Your task to perform on an android device: clear all cookies in the chrome app Image 0: 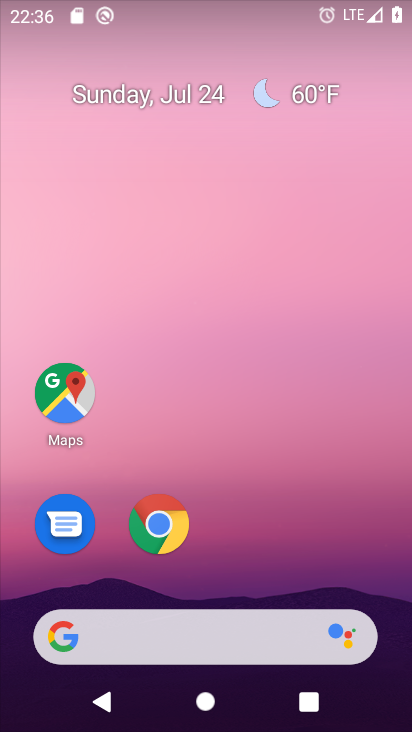
Step 0: click (174, 522)
Your task to perform on an android device: clear all cookies in the chrome app Image 1: 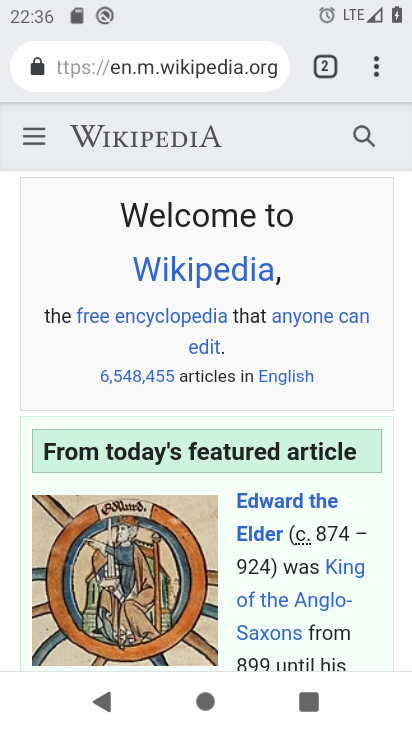
Step 1: click (372, 70)
Your task to perform on an android device: clear all cookies in the chrome app Image 2: 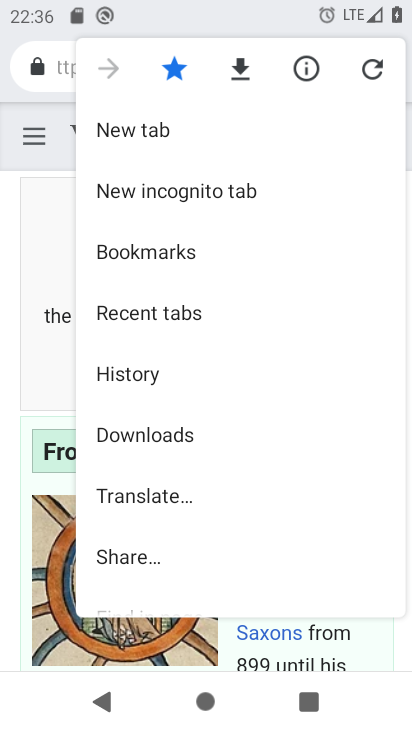
Step 2: drag from (234, 483) to (268, 107)
Your task to perform on an android device: clear all cookies in the chrome app Image 3: 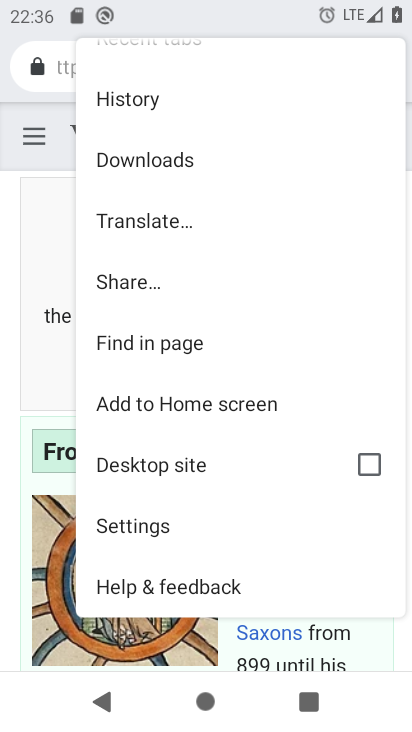
Step 3: click (159, 524)
Your task to perform on an android device: clear all cookies in the chrome app Image 4: 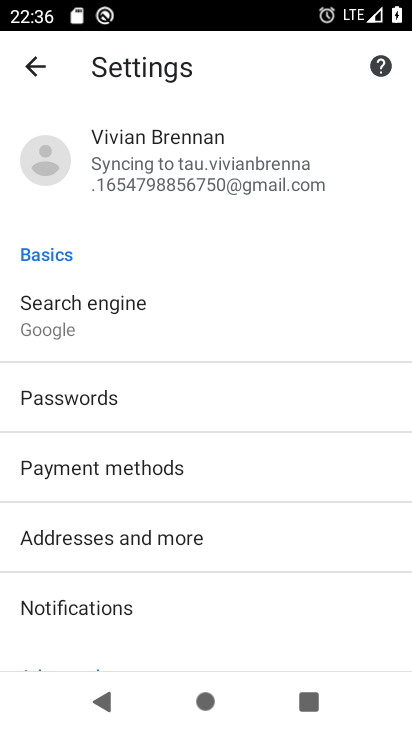
Step 4: drag from (238, 455) to (264, 104)
Your task to perform on an android device: clear all cookies in the chrome app Image 5: 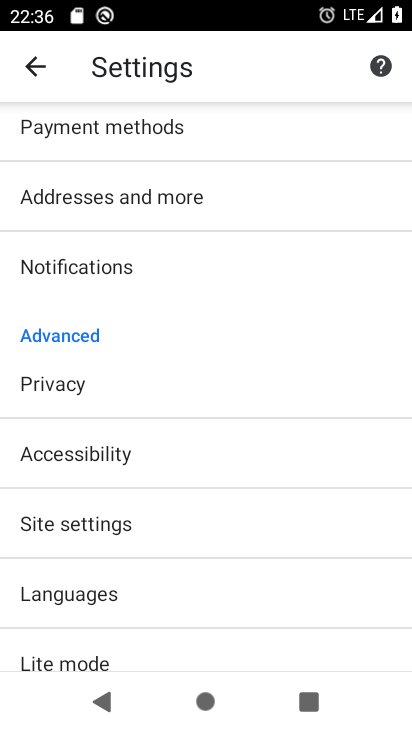
Step 5: click (122, 519)
Your task to perform on an android device: clear all cookies in the chrome app Image 6: 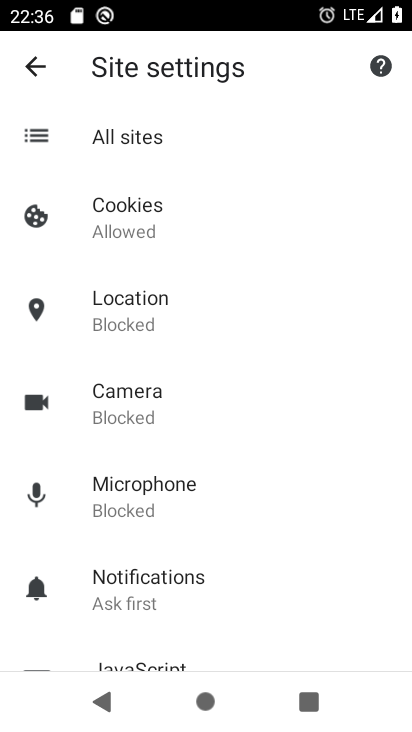
Step 6: click (142, 221)
Your task to perform on an android device: clear all cookies in the chrome app Image 7: 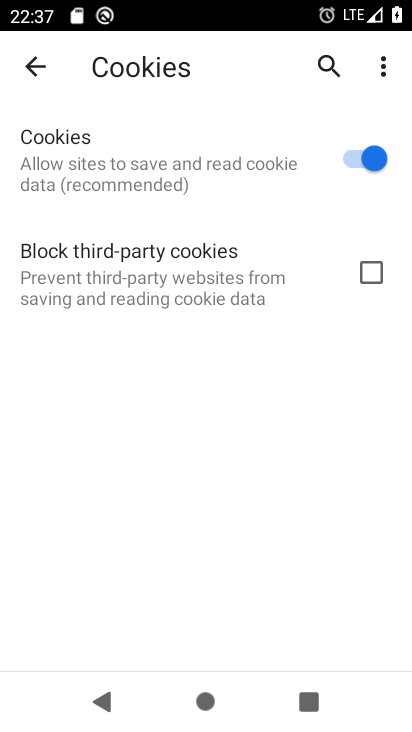
Step 7: task complete